Your task to perform on an android device: set the stopwatch Image 0: 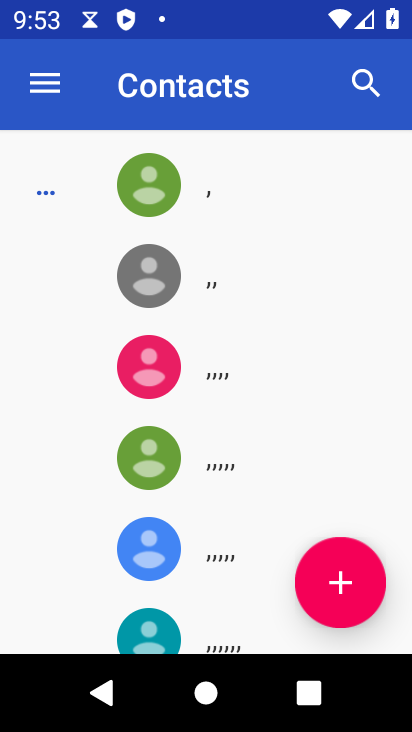
Step 0: press home button
Your task to perform on an android device: set the stopwatch Image 1: 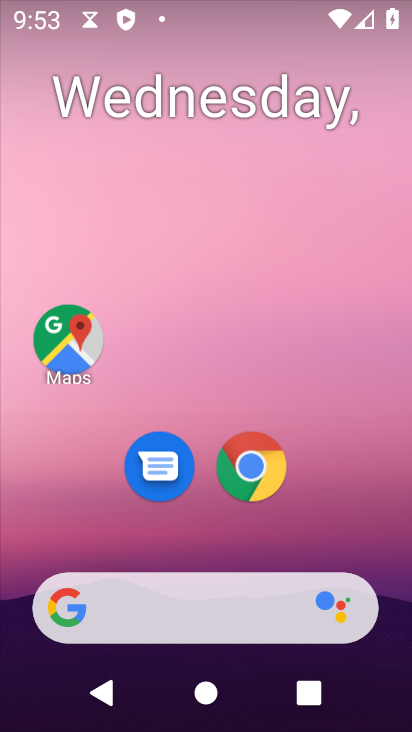
Step 1: drag from (264, 553) to (285, 4)
Your task to perform on an android device: set the stopwatch Image 2: 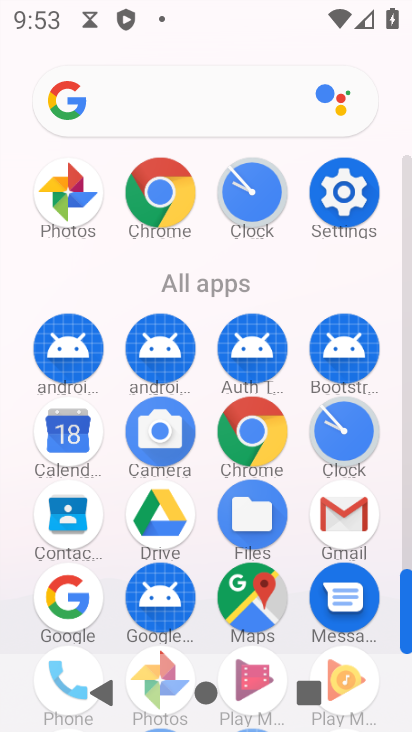
Step 2: click (349, 433)
Your task to perform on an android device: set the stopwatch Image 3: 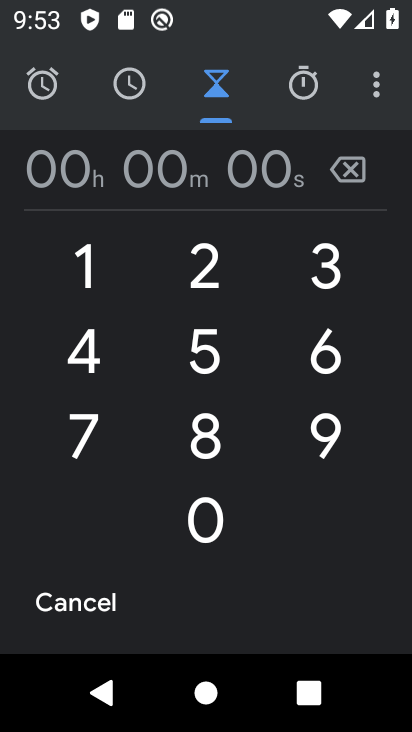
Step 3: click (293, 91)
Your task to perform on an android device: set the stopwatch Image 4: 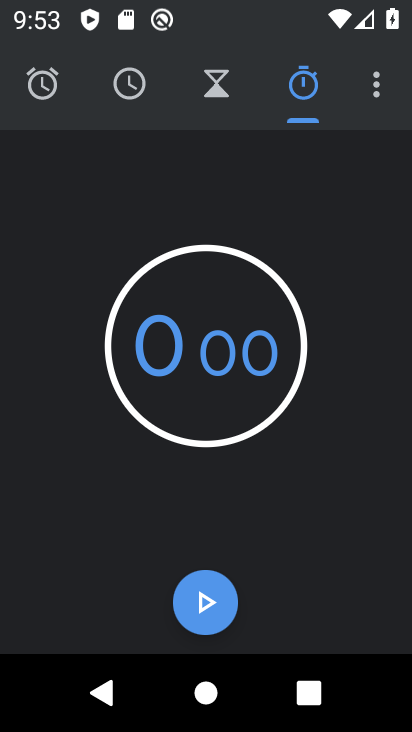
Step 4: click (208, 603)
Your task to perform on an android device: set the stopwatch Image 5: 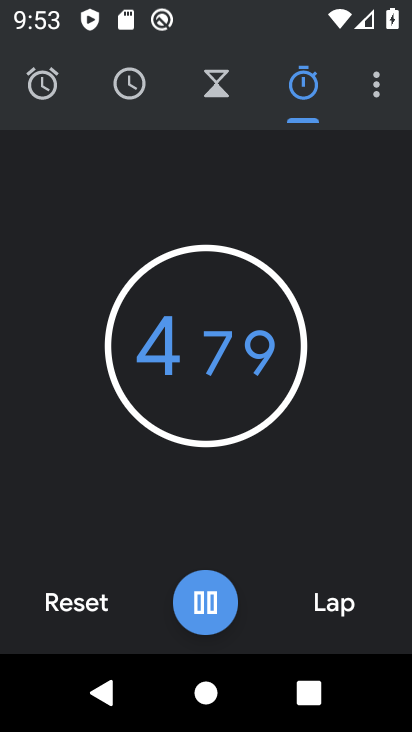
Step 5: click (208, 601)
Your task to perform on an android device: set the stopwatch Image 6: 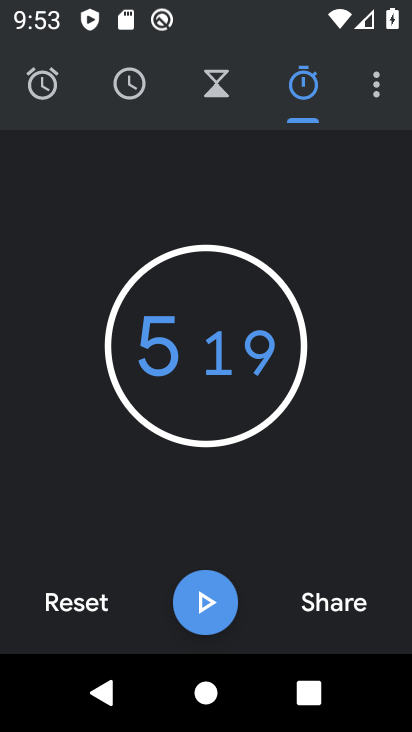
Step 6: task complete